Your task to perform on an android device: Open Yahoo.com Image 0: 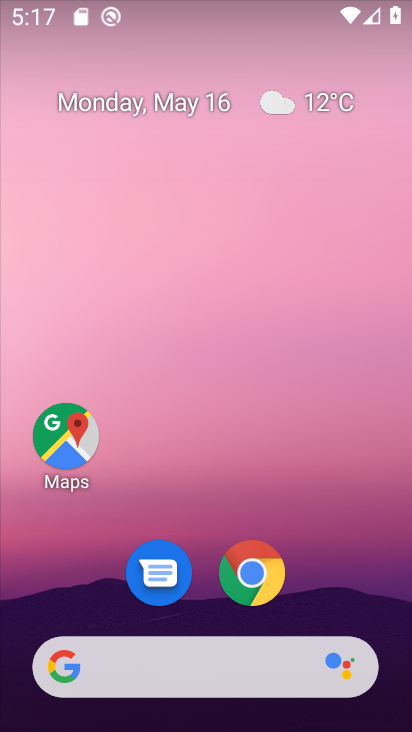
Step 0: click (255, 571)
Your task to perform on an android device: Open Yahoo.com Image 1: 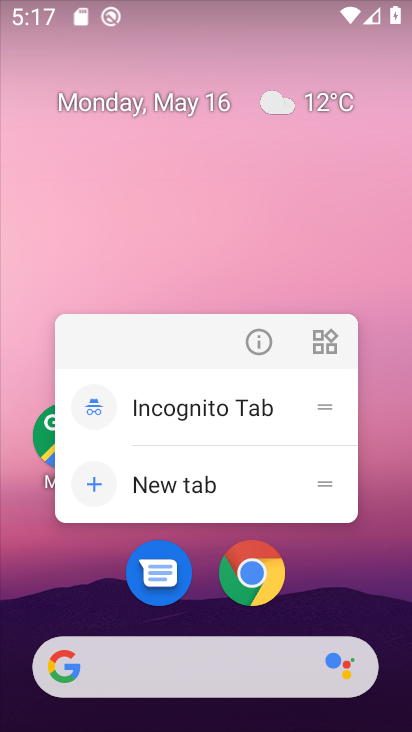
Step 1: click (252, 569)
Your task to perform on an android device: Open Yahoo.com Image 2: 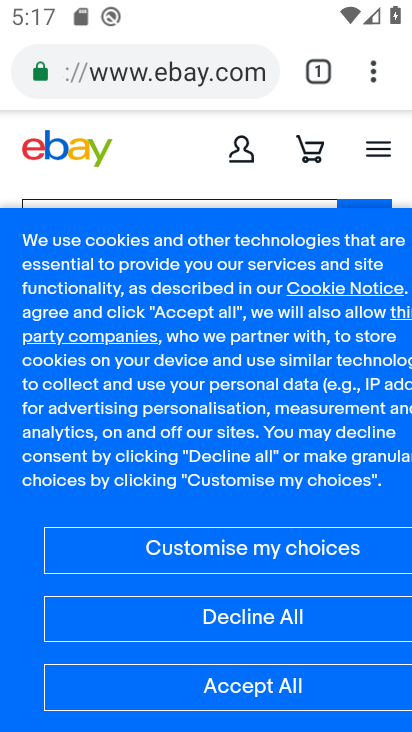
Step 2: click (315, 73)
Your task to perform on an android device: Open Yahoo.com Image 3: 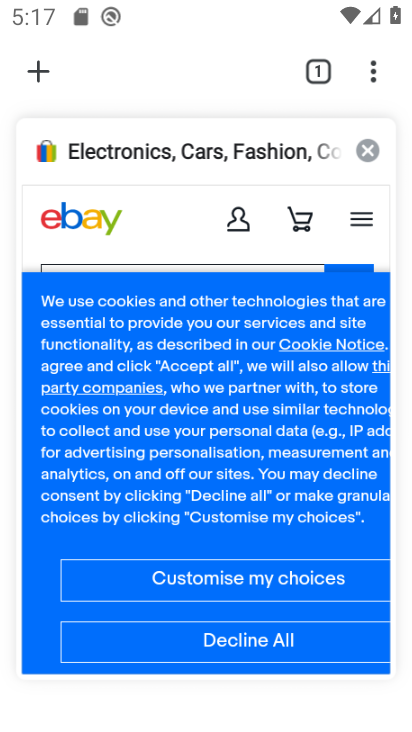
Step 3: click (46, 63)
Your task to perform on an android device: Open Yahoo.com Image 4: 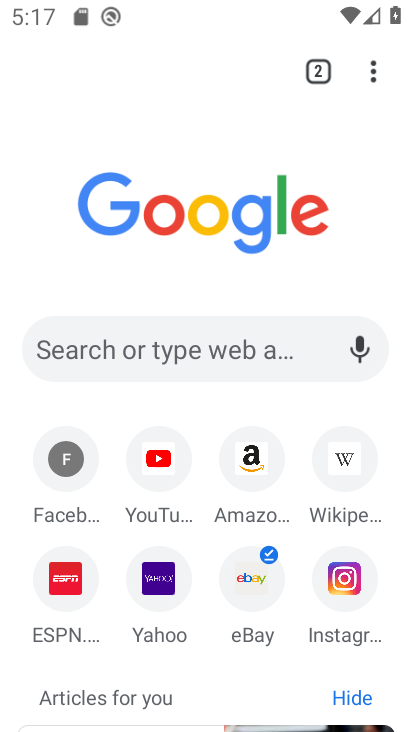
Step 4: click (172, 585)
Your task to perform on an android device: Open Yahoo.com Image 5: 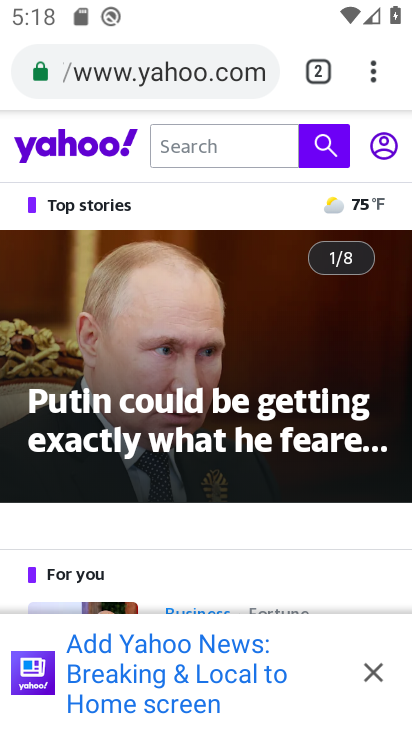
Step 5: task complete